Your task to perform on an android device: Clear all items from cart on bestbuy.com. Add razer huntsman to the cart on bestbuy.com Image 0: 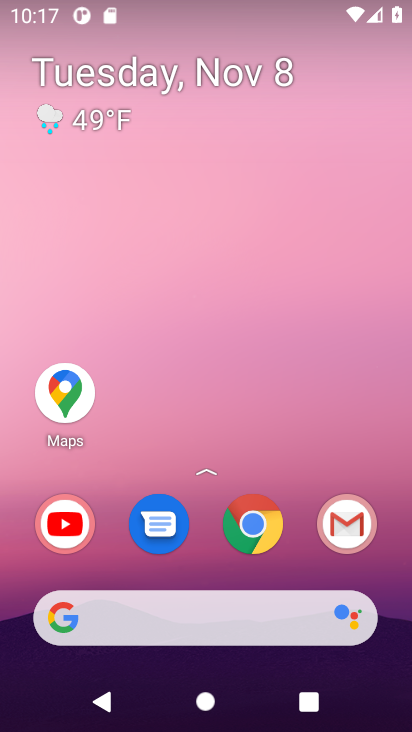
Step 0: click (252, 533)
Your task to perform on an android device: Clear all items from cart on bestbuy.com. Add razer huntsman to the cart on bestbuy.com Image 1: 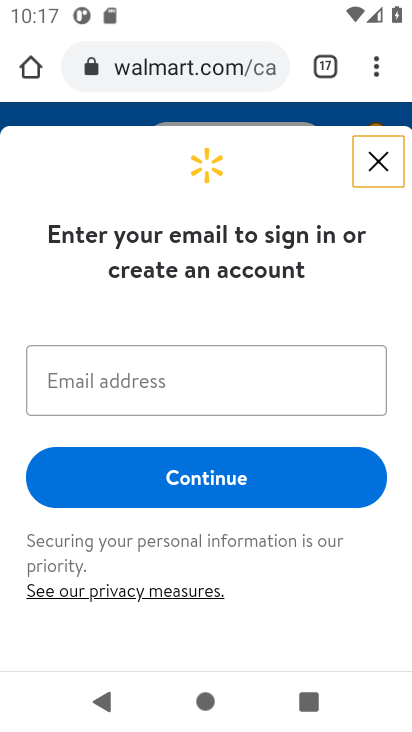
Step 1: click (158, 49)
Your task to perform on an android device: Clear all items from cart on bestbuy.com. Add razer huntsman to the cart on bestbuy.com Image 2: 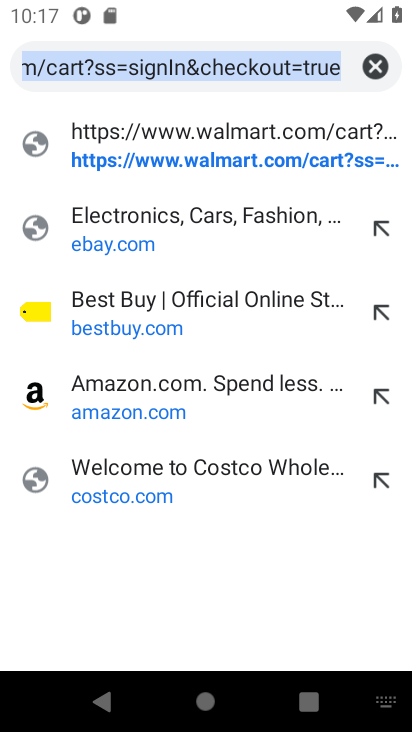
Step 2: click (139, 320)
Your task to perform on an android device: Clear all items from cart on bestbuy.com. Add razer huntsman to the cart on bestbuy.com Image 3: 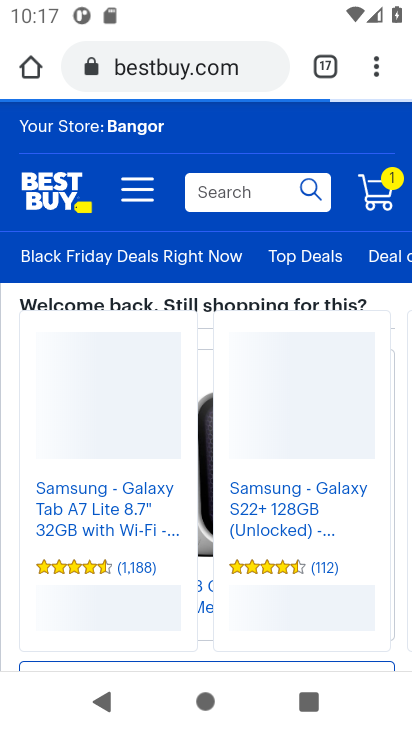
Step 3: click (379, 193)
Your task to perform on an android device: Clear all items from cart on bestbuy.com. Add razer huntsman to the cart on bestbuy.com Image 4: 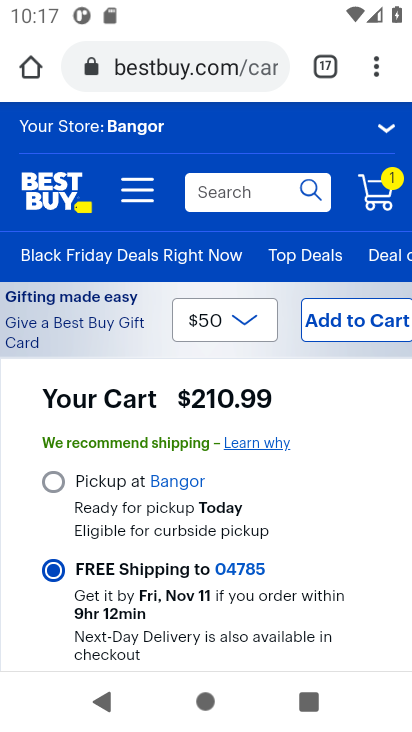
Step 4: drag from (222, 560) to (205, 306)
Your task to perform on an android device: Clear all items from cart on bestbuy.com. Add razer huntsman to the cart on bestbuy.com Image 5: 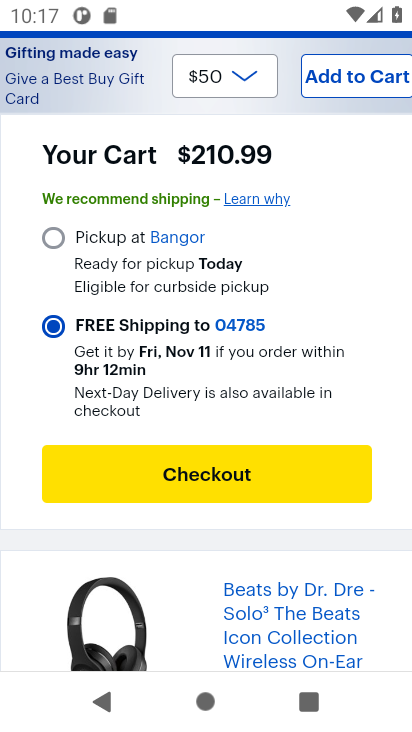
Step 5: drag from (202, 561) to (196, 210)
Your task to perform on an android device: Clear all items from cart on bestbuy.com. Add razer huntsman to the cart on bestbuy.com Image 6: 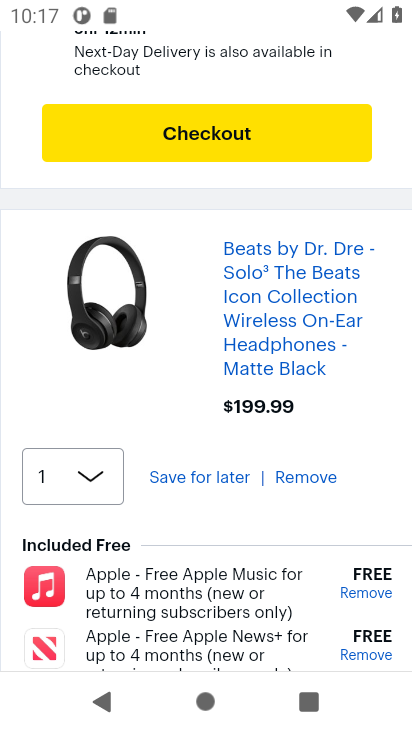
Step 6: click (297, 481)
Your task to perform on an android device: Clear all items from cart on bestbuy.com. Add razer huntsman to the cart on bestbuy.com Image 7: 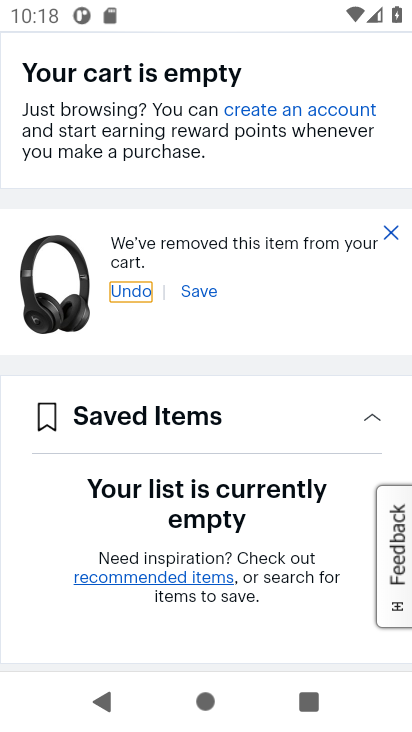
Step 7: drag from (207, 310) to (215, 585)
Your task to perform on an android device: Clear all items from cart on bestbuy.com. Add razer huntsman to the cart on bestbuy.com Image 8: 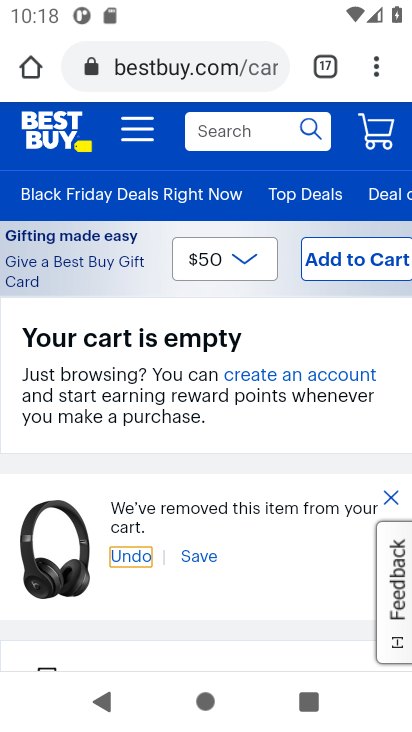
Step 8: click (244, 130)
Your task to perform on an android device: Clear all items from cart on bestbuy.com. Add razer huntsman to the cart on bestbuy.com Image 9: 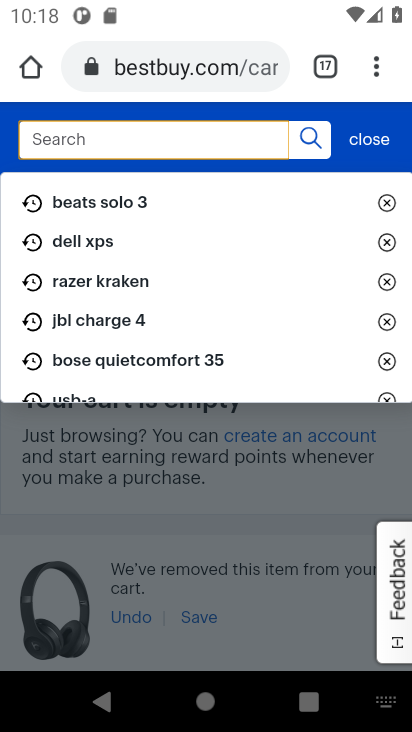
Step 9: type "razer huntsman"
Your task to perform on an android device: Clear all items from cart on bestbuy.com. Add razer huntsman to the cart on bestbuy.com Image 10: 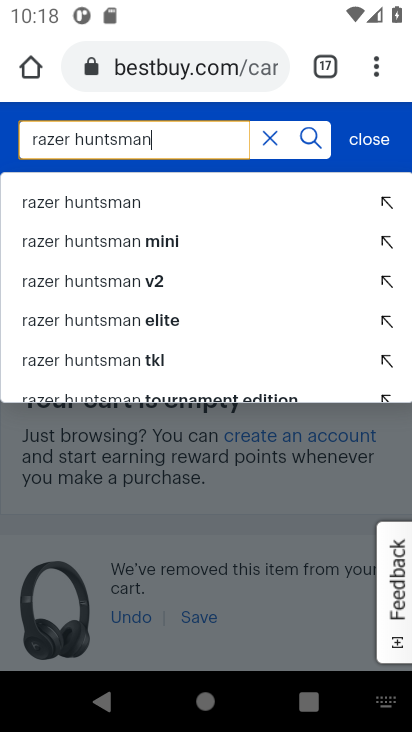
Step 10: click (84, 205)
Your task to perform on an android device: Clear all items from cart on bestbuy.com. Add razer huntsman to the cart on bestbuy.com Image 11: 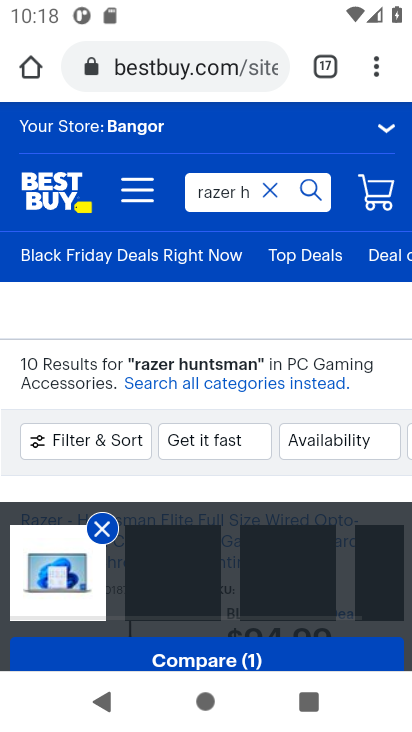
Step 11: drag from (182, 485) to (150, 246)
Your task to perform on an android device: Clear all items from cart on bestbuy.com. Add razer huntsman to the cart on bestbuy.com Image 12: 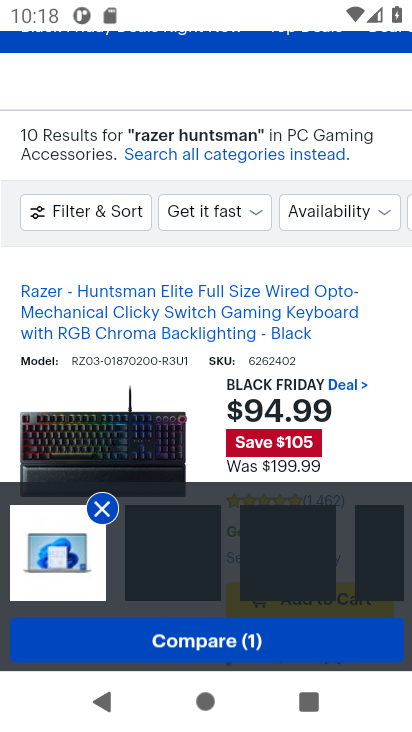
Step 12: drag from (147, 378) to (146, 177)
Your task to perform on an android device: Clear all items from cart on bestbuy.com. Add razer huntsman to the cart on bestbuy.com Image 13: 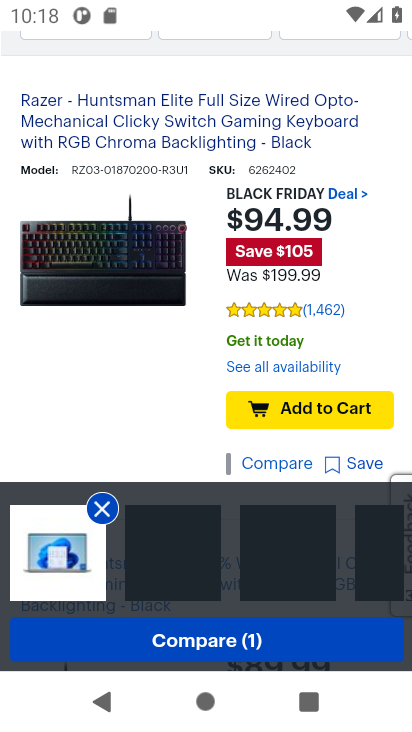
Step 13: click (312, 413)
Your task to perform on an android device: Clear all items from cart on bestbuy.com. Add razer huntsman to the cart on bestbuy.com Image 14: 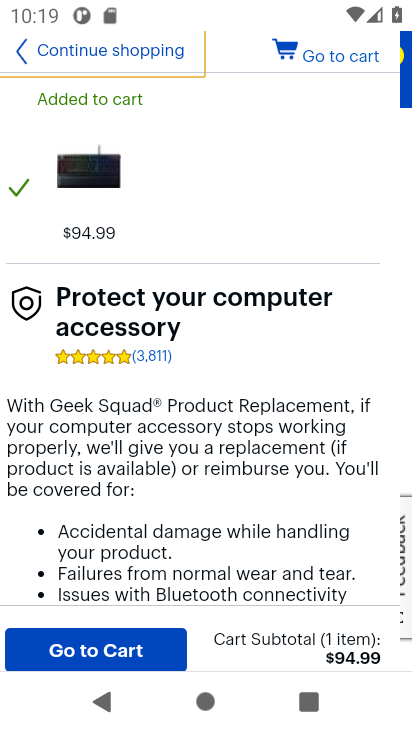
Step 14: task complete